Your task to perform on an android device: add a contact Image 0: 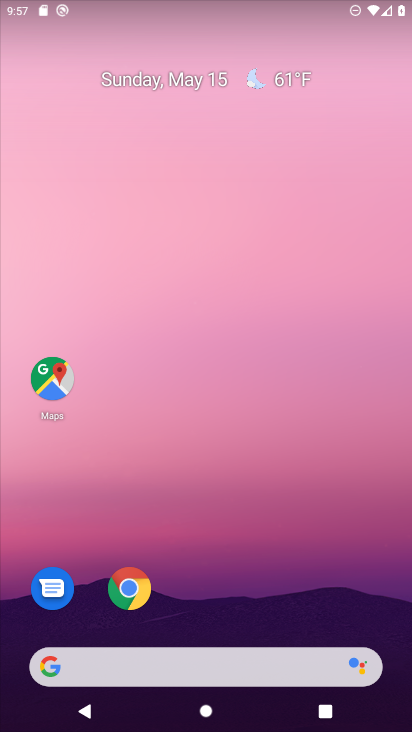
Step 0: drag from (266, 575) to (331, 30)
Your task to perform on an android device: add a contact Image 1: 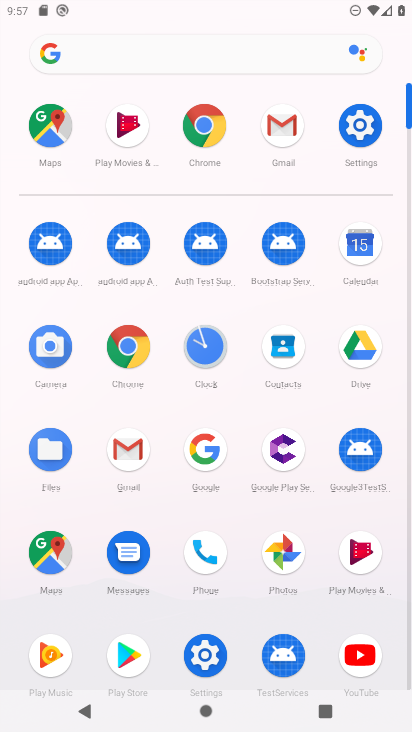
Step 1: click (291, 360)
Your task to perform on an android device: add a contact Image 2: 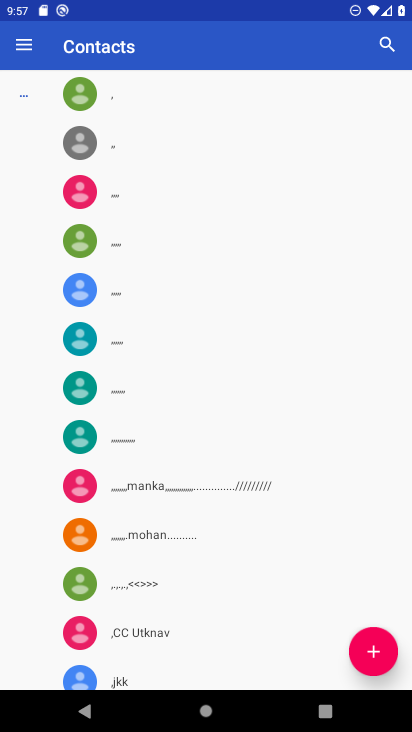
Step 2: click (370, 657)
Your task to perform on an android device: add a contact Image 3: 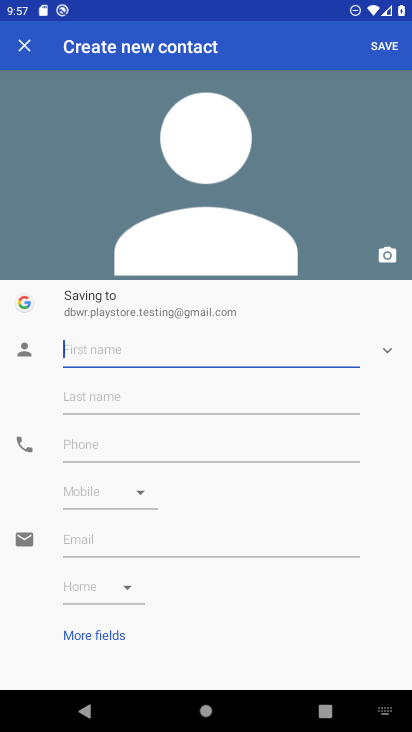
Step 3: type "cluos"
Your task to perform on an android device: add a contact Image 4: 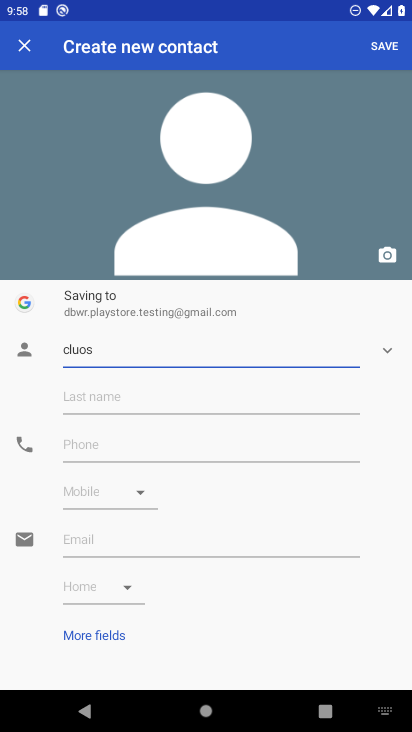
Step 4: click (392, 49)
Your task to perform on an android device: add a contact Image 5: 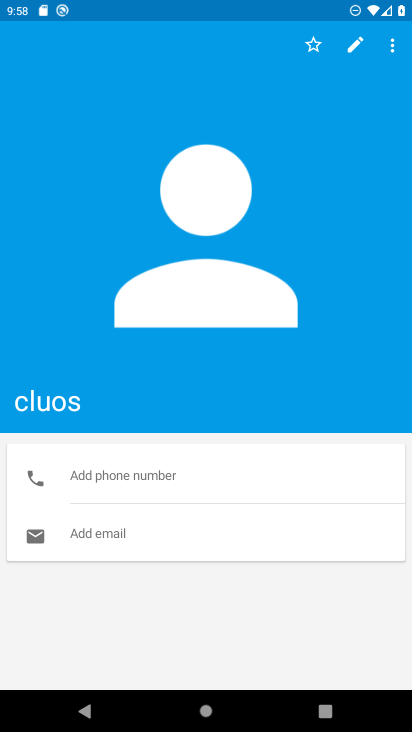
Step 5: task complete